Your task to perform on an android device: Do I have any events tomorrow? Image 0: 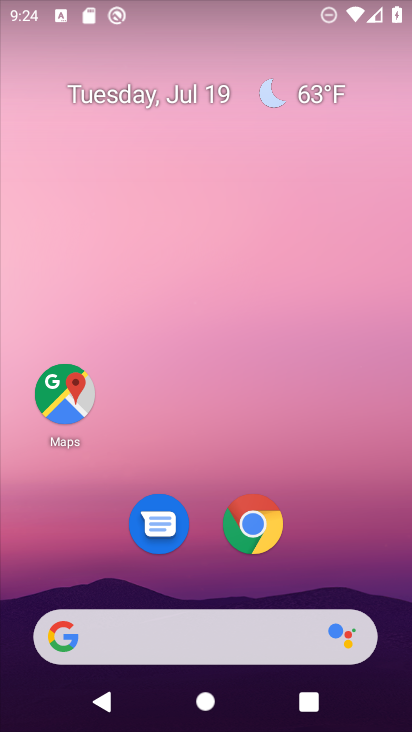
Step 0: drag from (339, 548) to (367, 51)
Your task to perform on an android device: Do I have any events tomorrow? Image 1: 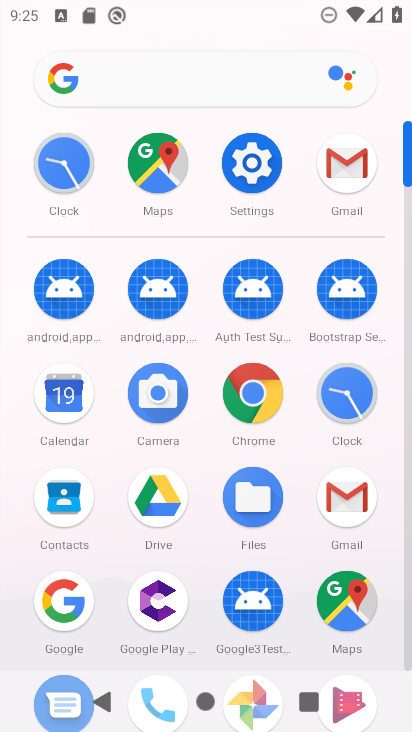
Step 1: click (55, 388)
Your task to perform on an android device: Do I have any events tomorrow? Image 2: 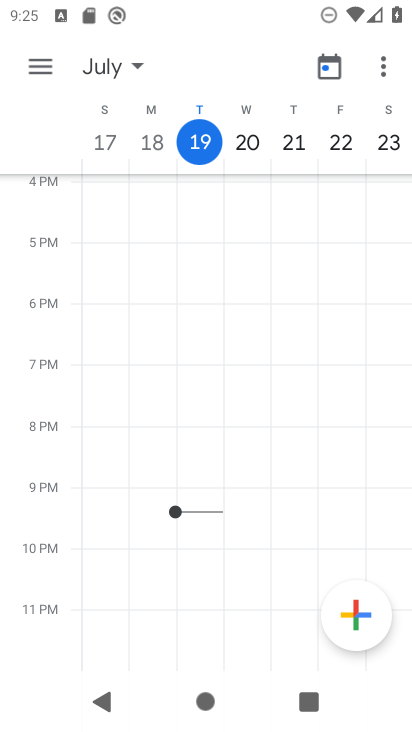
Step 2: task complete